Your task to perform on an android device: set the timer Image 0: 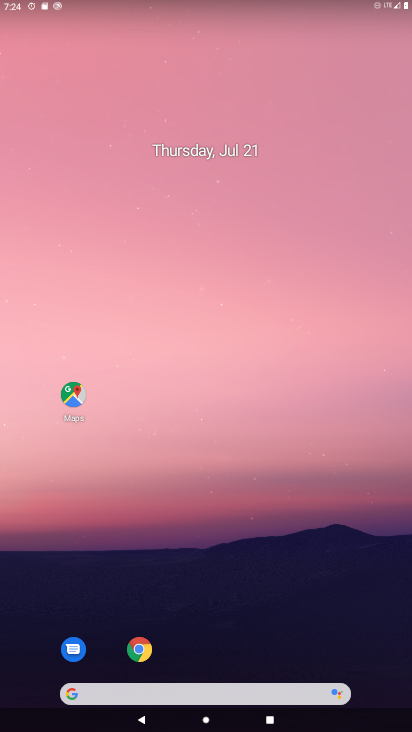
Step 0: drag from (387, 635) to (204, 61)
Your task to perform on an android device: set the timer Image 1: 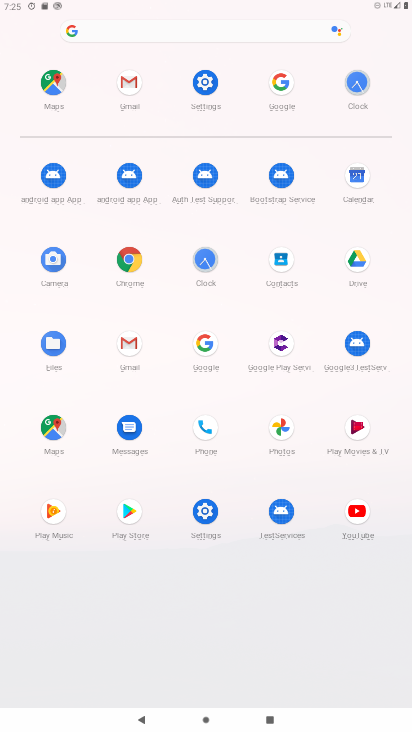
Step 1: click (196, 268)
Your task to perform on an android device: set the timer Image 2: 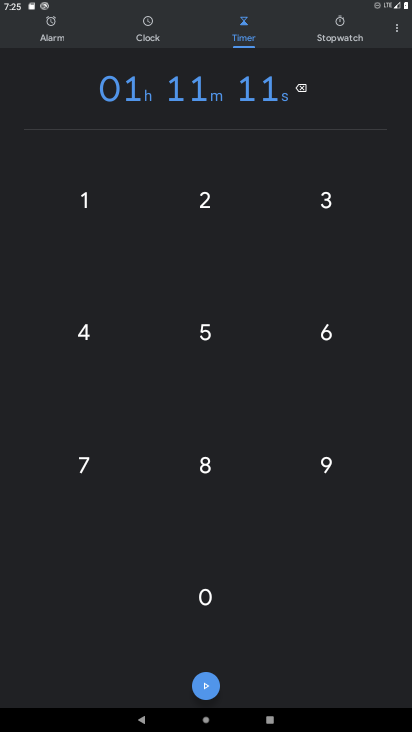
Step 2: click (204, 687)
Your task to perform on an android device: set the timer Image 3: 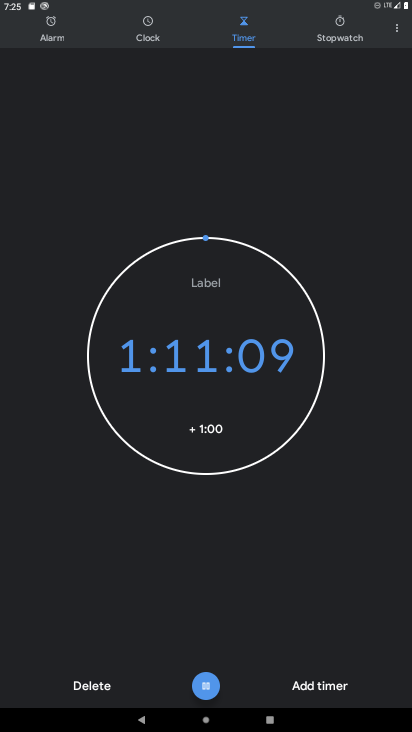
Step 3: click (205, 688)
Your task to perform on an android device: set the timer Image 4: 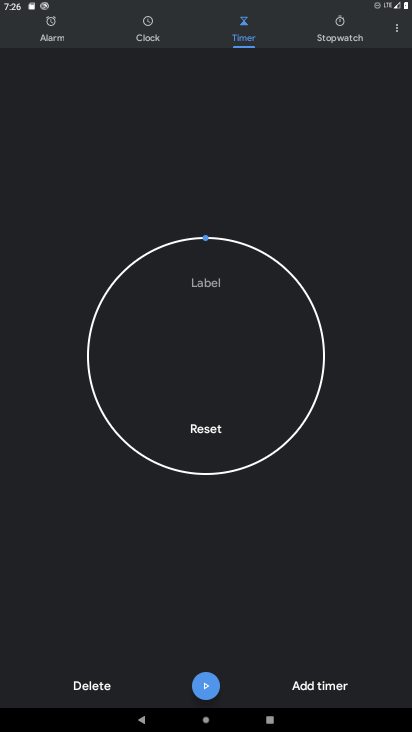
Step 4: task complete